Your task to perform on an android device: What's the weather today? Image 0: 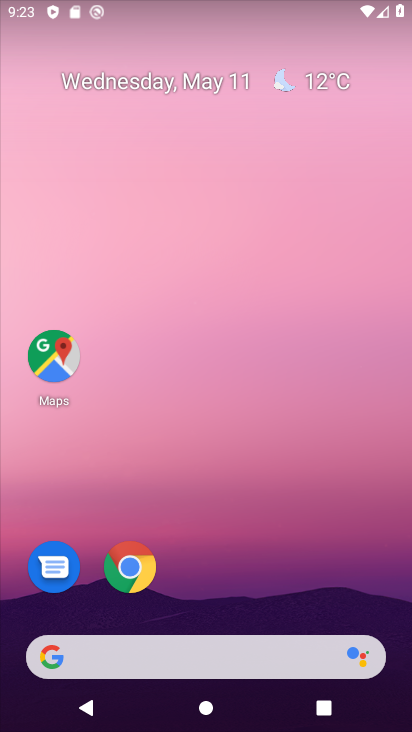
Step 0: click (133, 559)
Your task to perform on an android device: What's the weather today? Image 1: 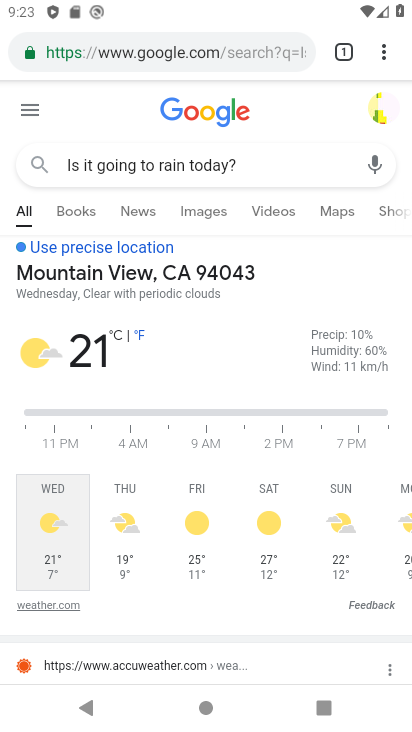
Step 1: click (131, 50)
Your task to perform on an android device: What's the weather today? Image 2: 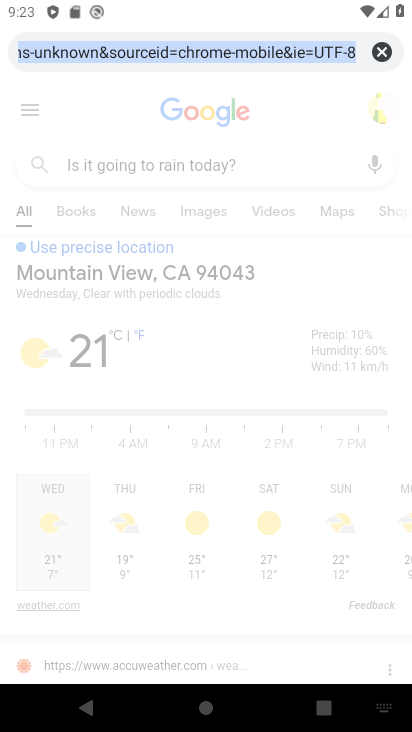
Step 2: type "weather"
Your task to perform on an android device: What's the weather today? Image 3: 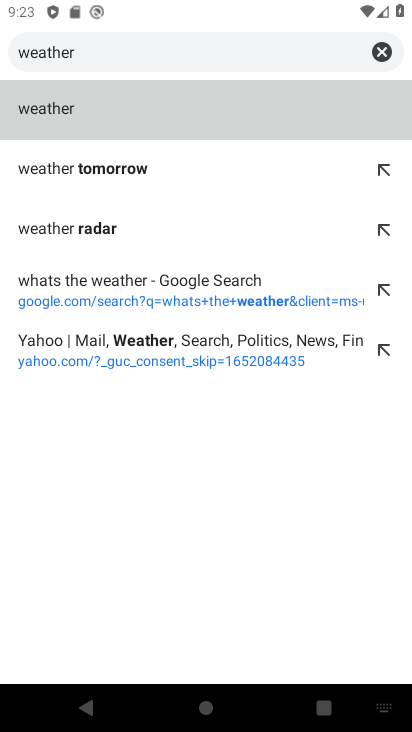
Step 3: click (71, 113)
Your task to perform on an android device: What's the weather today? Image 4: 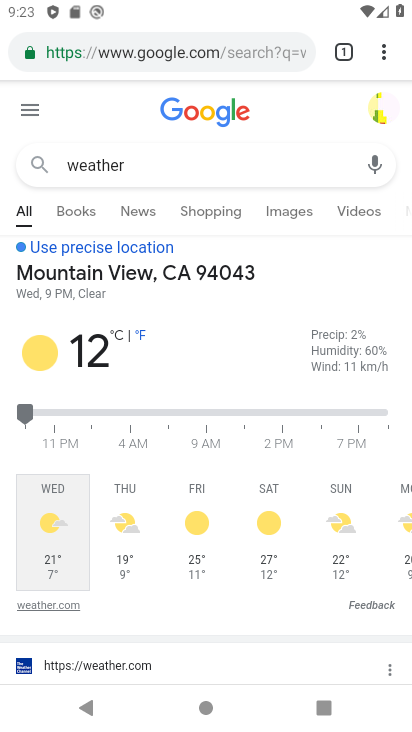
Step 4: task complete